Your task to perform on an android device: change the clock display to digital Image 0: 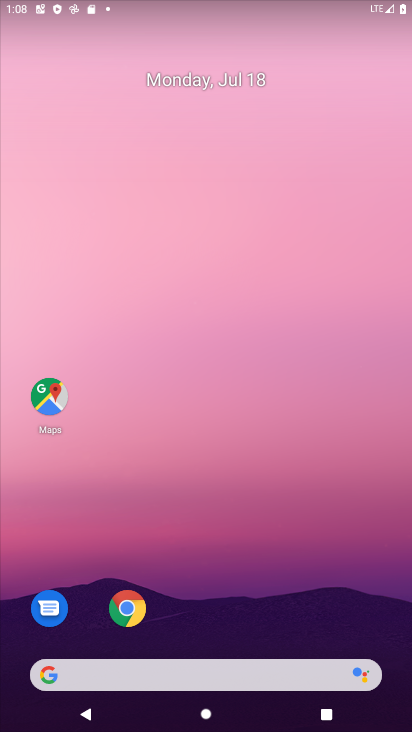
Step 0: drag from (318, 602) to (317, 10)
Your task to perform on an android device: change the clock display to digital Image 1: 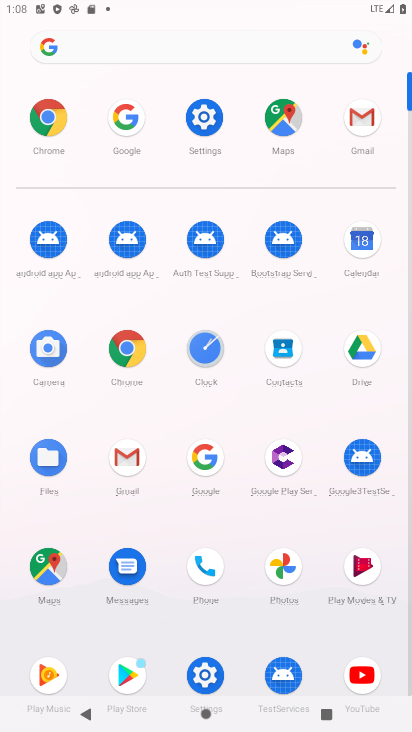
Step 1: click (211, 359)
Your task to perform on an android device: change the clock display to digital Image 2: 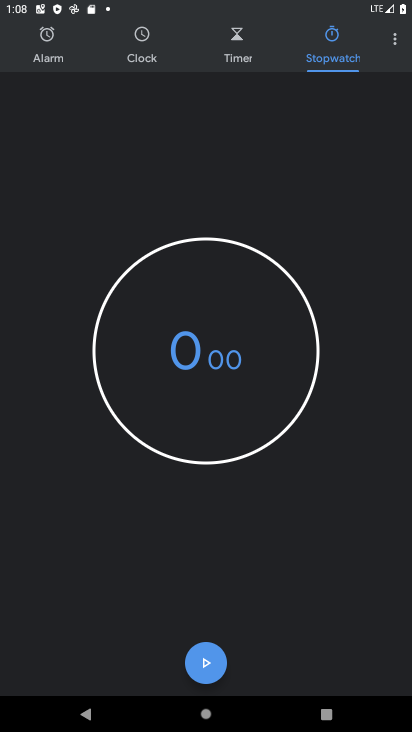
Step 2: click (392, 34)
Your task to perform on an android device: change the clock display to digital Image 3: 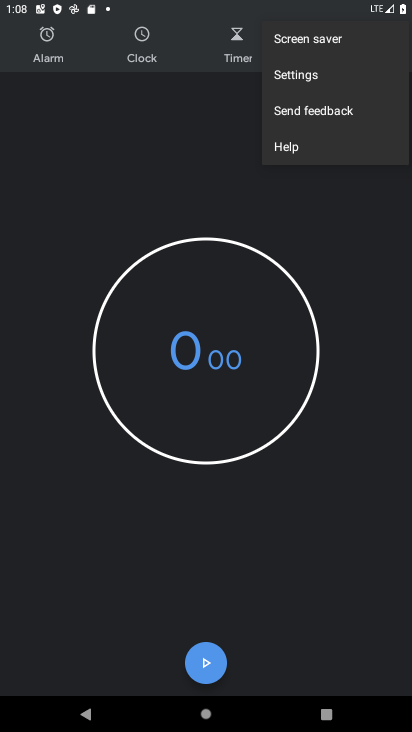
Step 3: click (307, 80)
Your task to perform on an android device: change the clock display to digital Image 4: 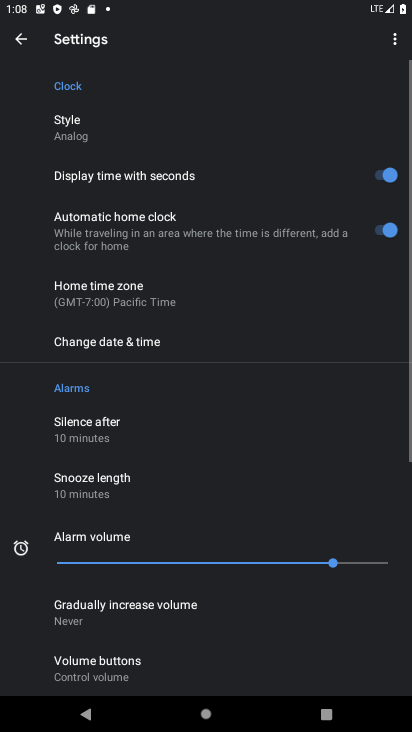
Step 4: click (77, 137)
Your task to perform on an android device: change the clock display to digital Image 5: 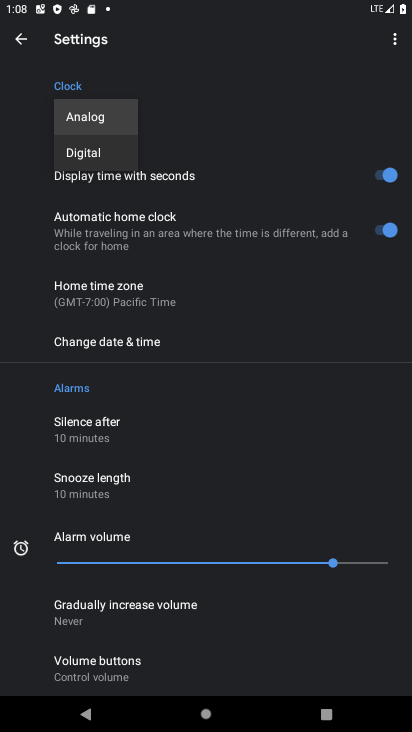
Step 5: click (98, 154)
Your task to perform on an android device: change the clock display to digital Image 6: 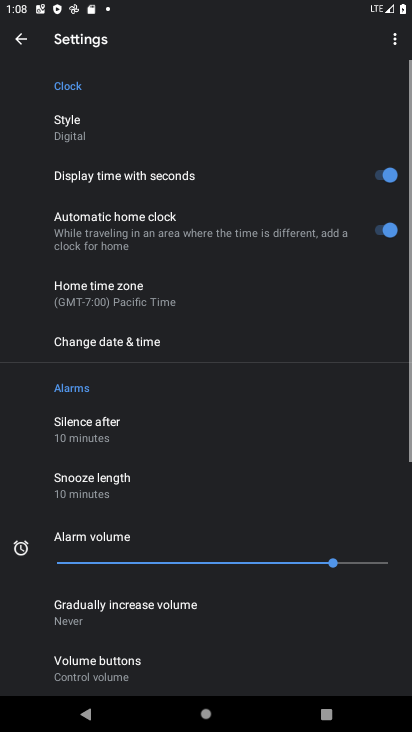
Step 6: task complete